Your task to perform on an android device: Do I have any events tomorrow? Image 0: 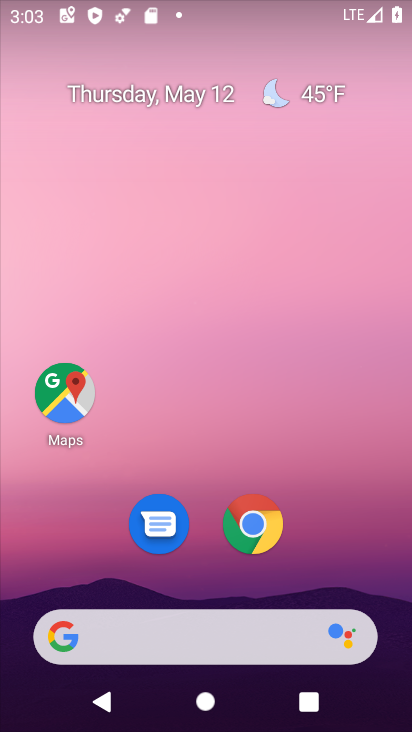
Step 0: drag from (265, 438) to (300, 72)
Your task to perform on an android device: Do I have any events tomorrow? Image 1: 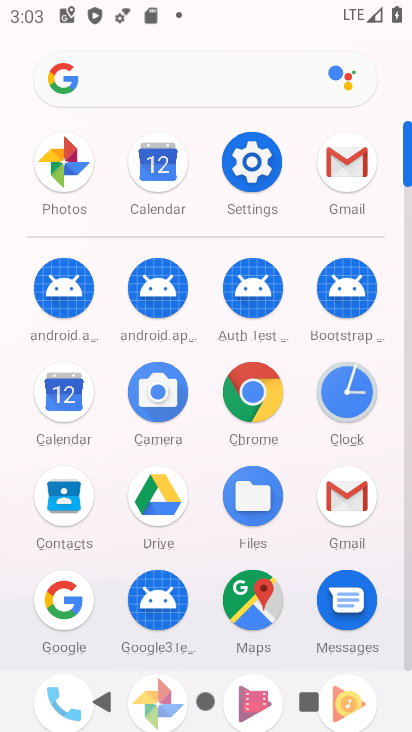
Step 1: click (158, 168)
Your task to perform on an android device: Do I have any events tomorrow? Image 2: 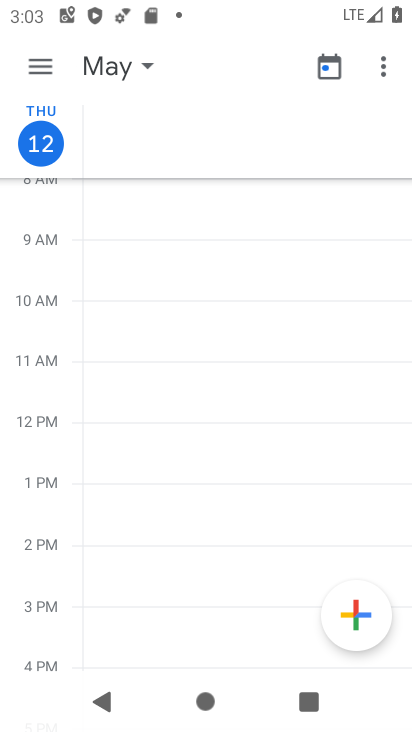
Step 2: click (44, 70)
Your task to perform on an android device: Do I have any events tomorrow? Image 3: 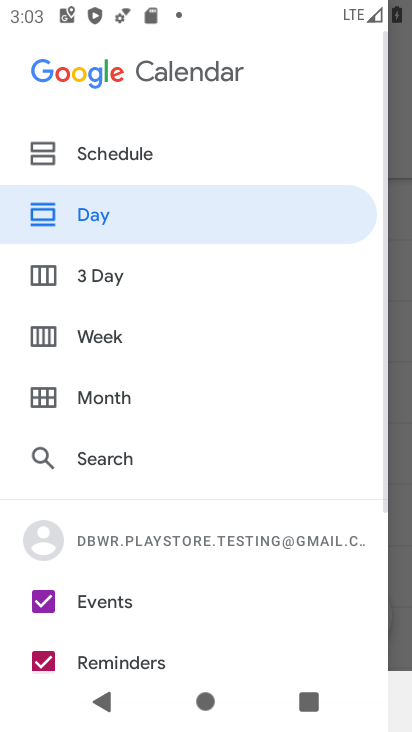
Step 3: click (101, 150)
Your task to perform on an android device: Do I have any events tomorrow? Image 4: 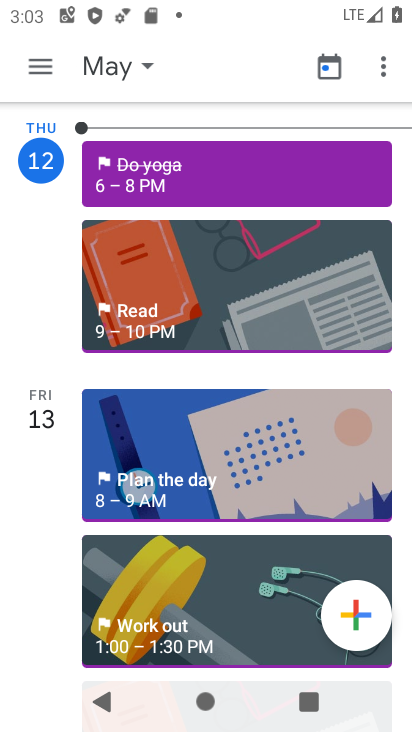
Step 4: task complete